Your task to perform on an android device: turn on translation in the chrome app Image 0: 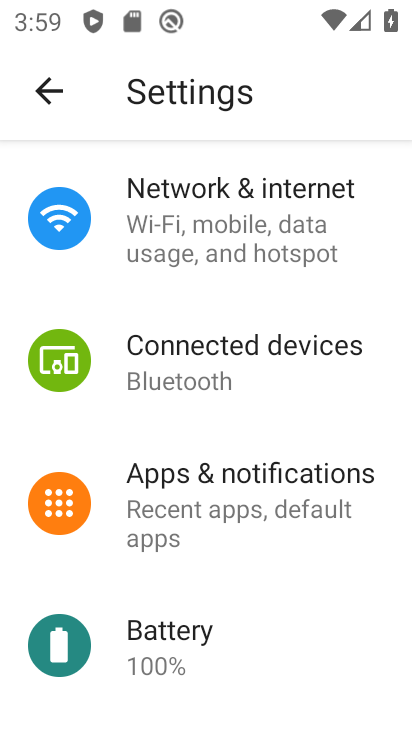
Step 0: press back button
Your task to perform on an android device: turn on translation in the chrome app Image 1: 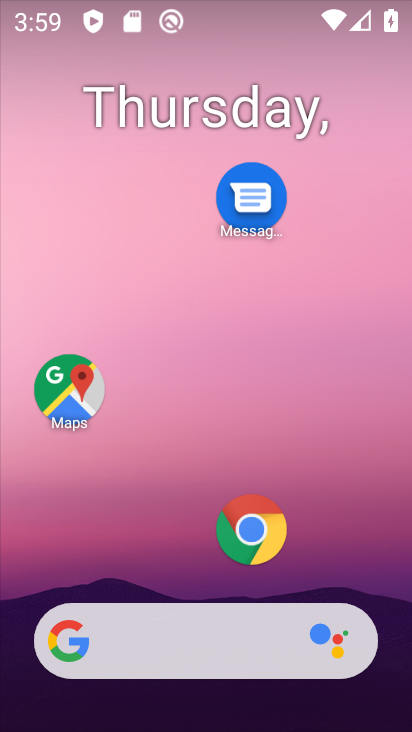
Step 1: drag from (118, 588) to (171, 62)
Your task to perform on an android device: turn on translation in the chrome app Image 2: 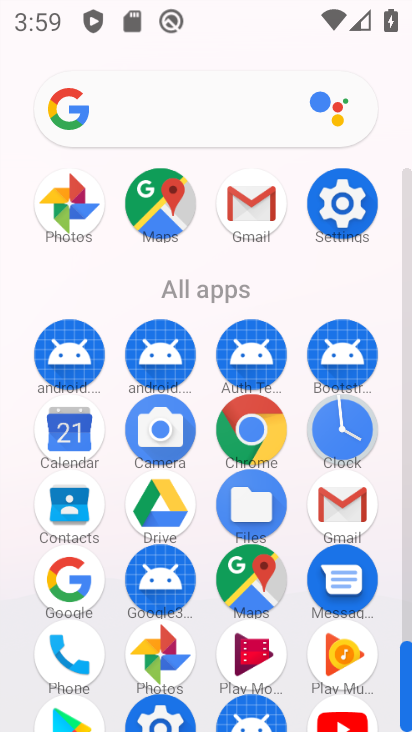
Step 2: click (264, 419)
Your task to perform on an android device: turn on translation in the chrome app Image 3: 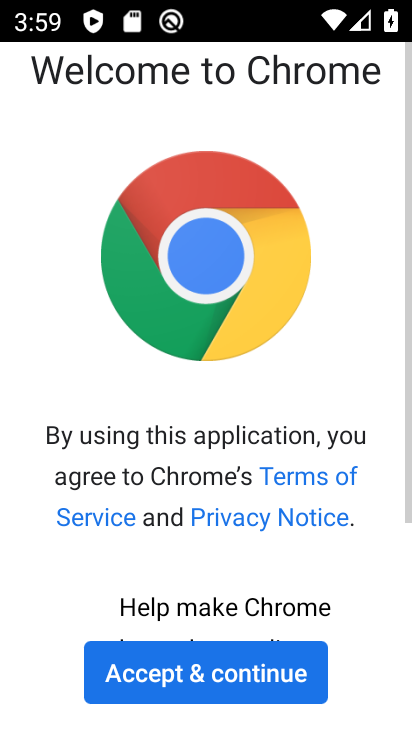
Step 3: click (254, 678)
Your task to perform on an android device: turn on translation in the chrome app Image 4: 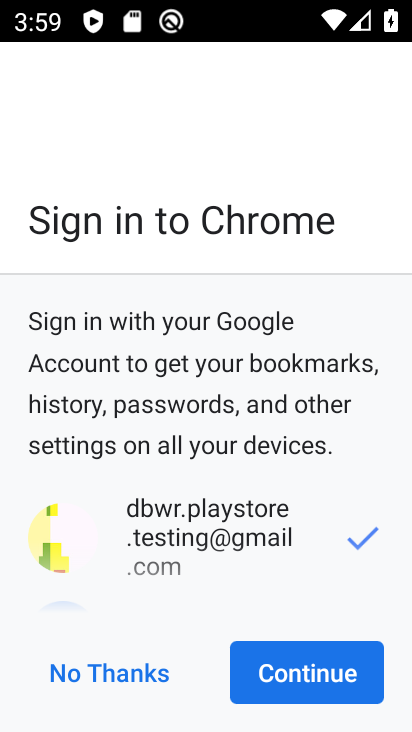
Step 4: click (292, 683)
Your task to perform on an android device: turn on translation in the chrome app Image 5: 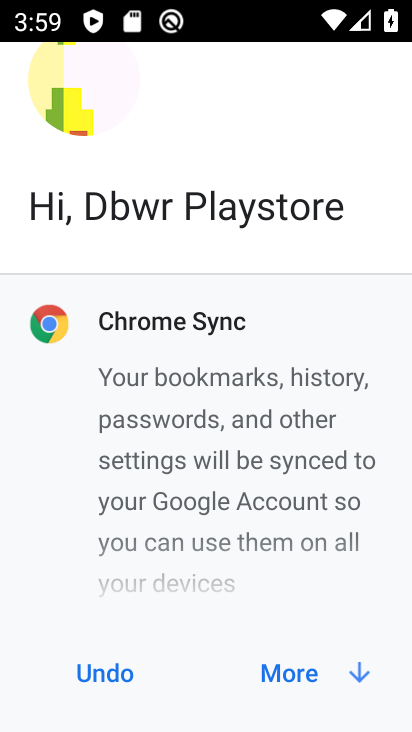
Step 5: click (292, 683)
Your task to perform on an android device: turn on translation in the chrome app Image 6: 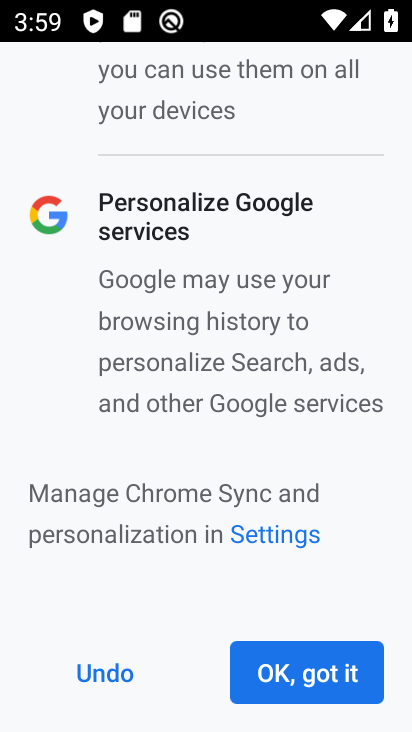
Step 6: click (291, 680)
Your task to perform on an android device: turn on translation in the chrome app Image 7: 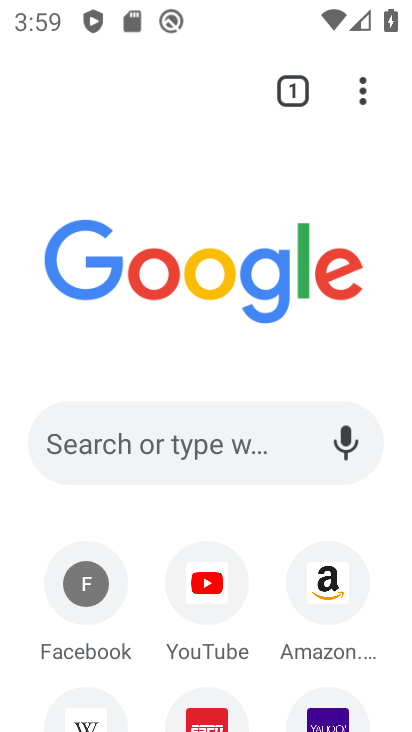
Step 7: drag from (380, 97) to (299, 571)
Your task to perform on an android device: turn on translation in the chrome app Image 8: 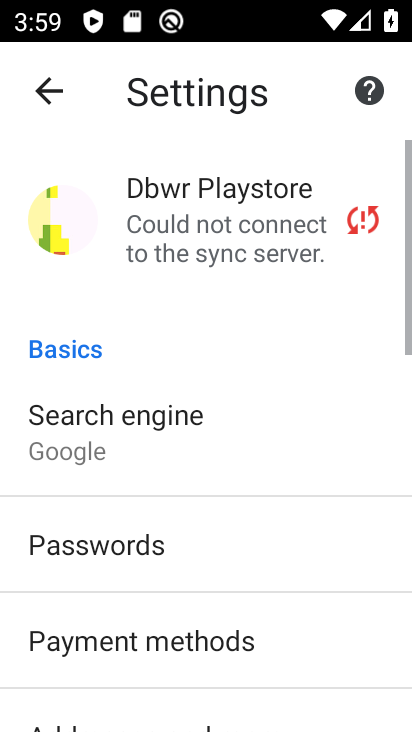
Step 8: drag from (262, 593) to (364, 224)
Your task to perform on an android device: turn on translation in the chrome app Image 9: 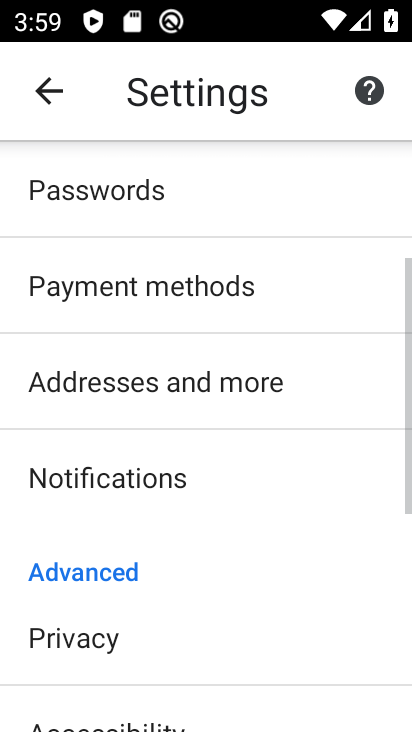
Step 9: drag from (271, 605) to (361, 221)
Your task to perform on an android device: turn on translation in the chrome app Image 10: 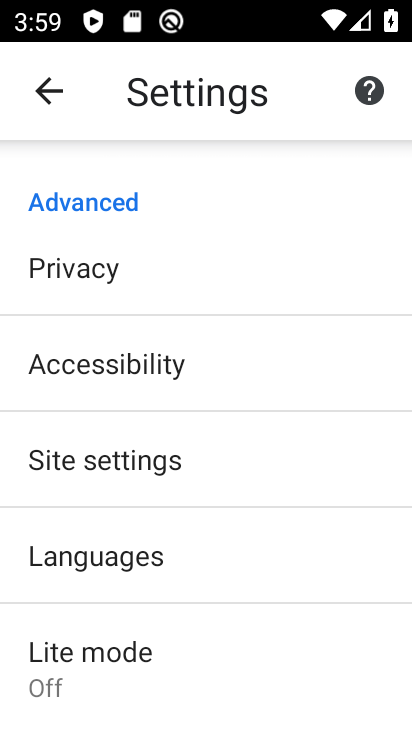
Step 10: click (207, 555)
Your task to perform on an android device: turn on translation in the chrome app Image 11: 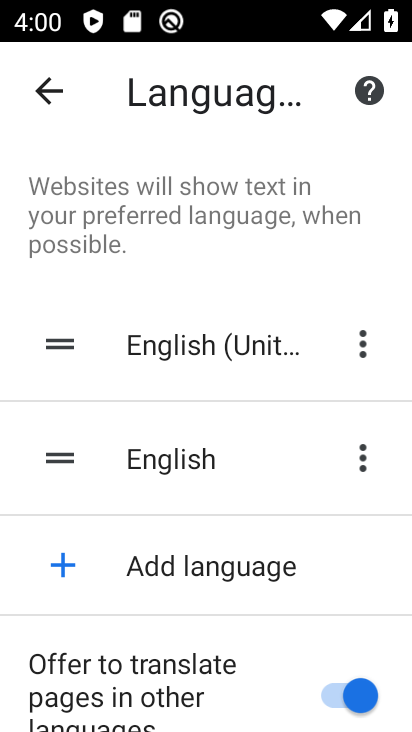
Step 11: task complete